Your task to perform on an android device: Search for logitech g502 on bestbuy, select the first entry, and add it to the cart. Image 0: 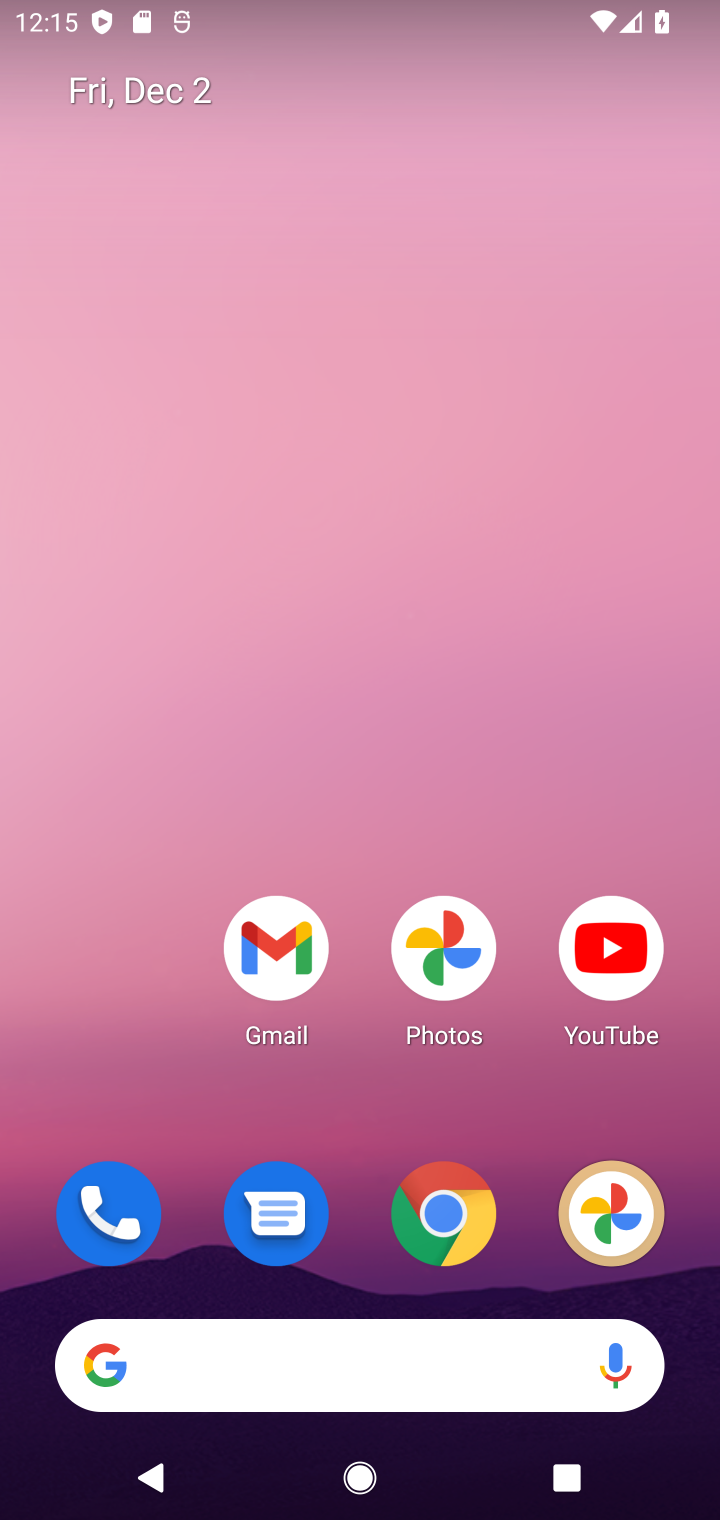
Step 0: click (392, 672)
Your task to perform on an android device: Search for logitech g502 on bestbuy, select the first entry, and add it to the cart. Image 1: 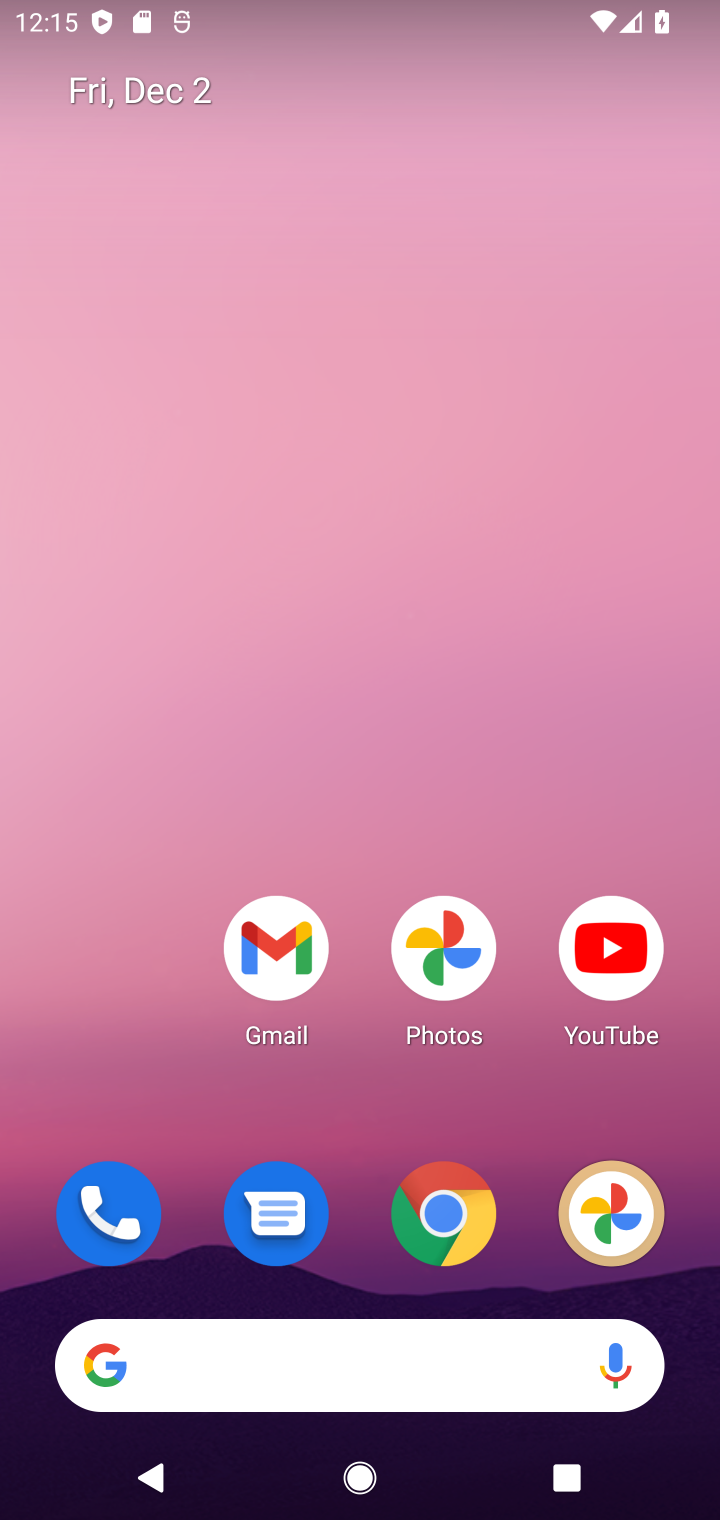
Step 1: drag from (283, 1162) to (323, 447)
Your task to perform on an android device: Search for logitech g502 on bestbuy, select the first entry, and add it to the cart. Image 2: 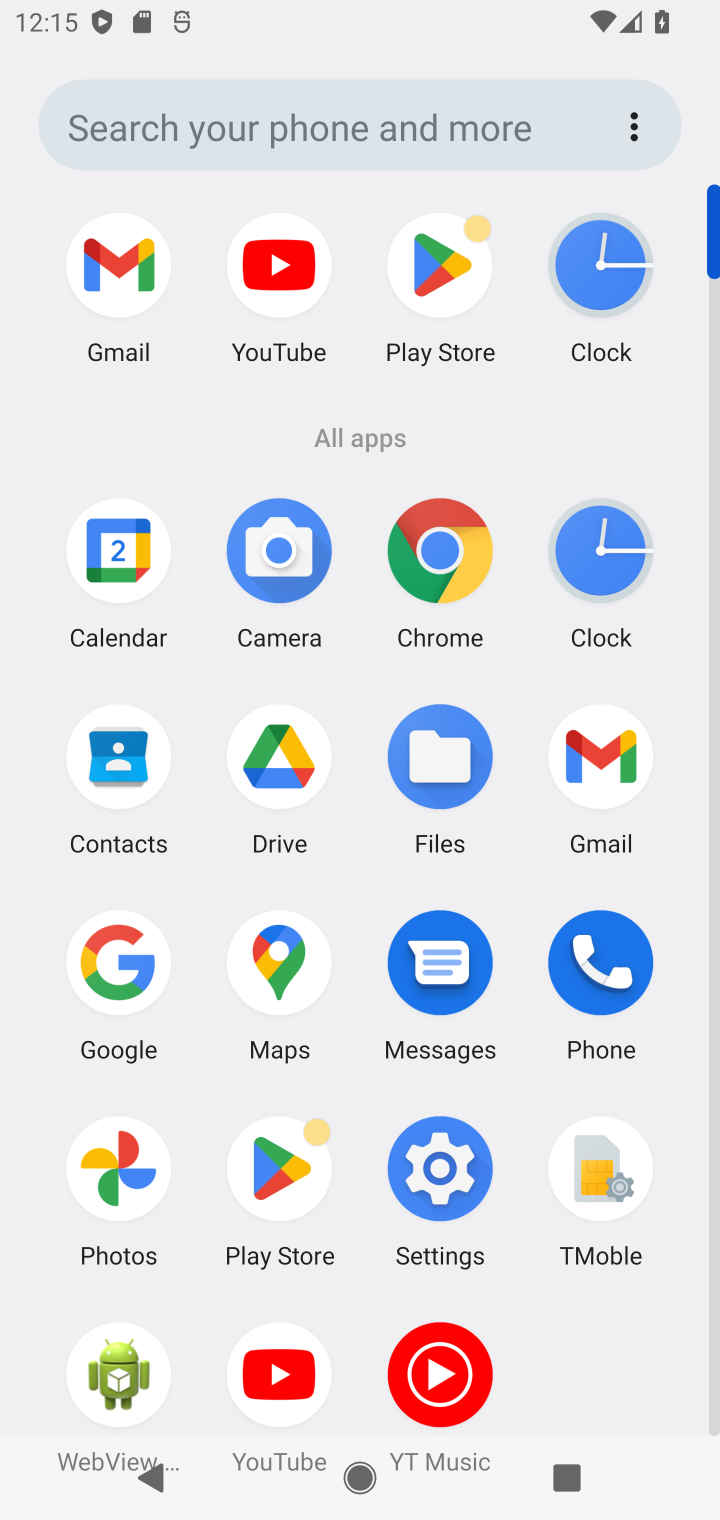
Step 2: click (131, 962)
Your task to perform on an android device: Search for logitech g502 on bestbuy, select the first entry, and add it to the cart. Image 3: 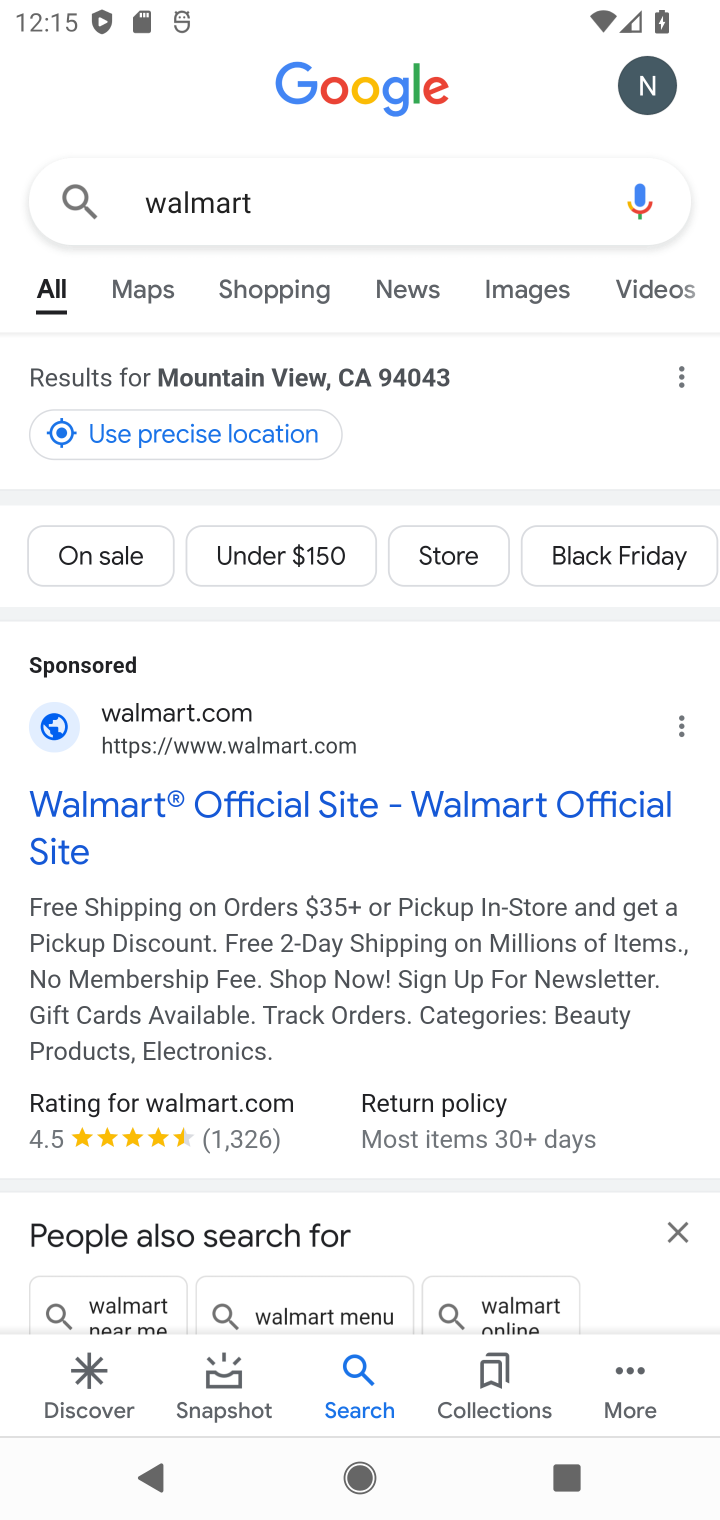
Step 3: click (221, 211)
Your task to perform on an android device: Search for logitech g502 on bestbuy, select the first entry, and add it to the cart. Image 4: 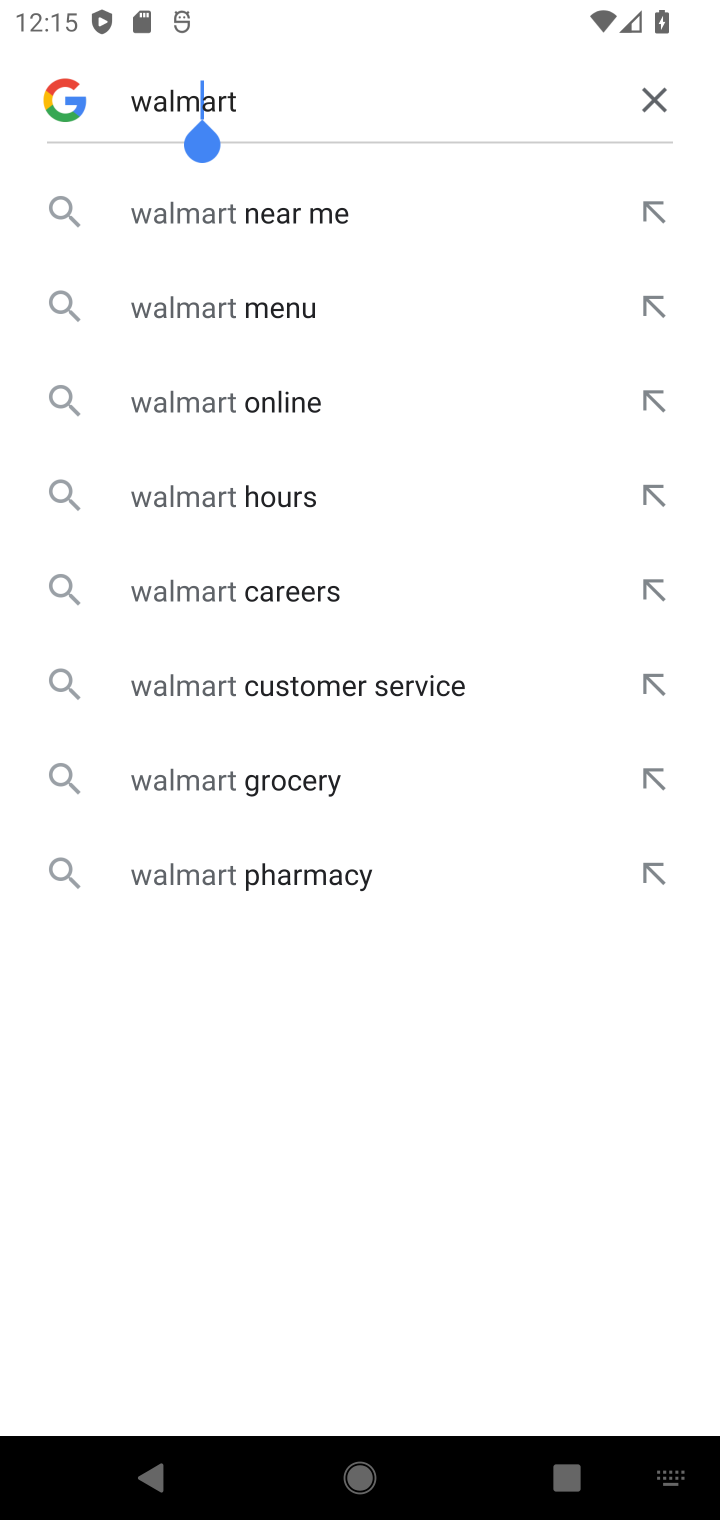
Step 4: click (652, 93)
Your task to perform on an android device: Search for logitech g502 on bestbuy, select the first entry, and add it to the cart. Image 5: 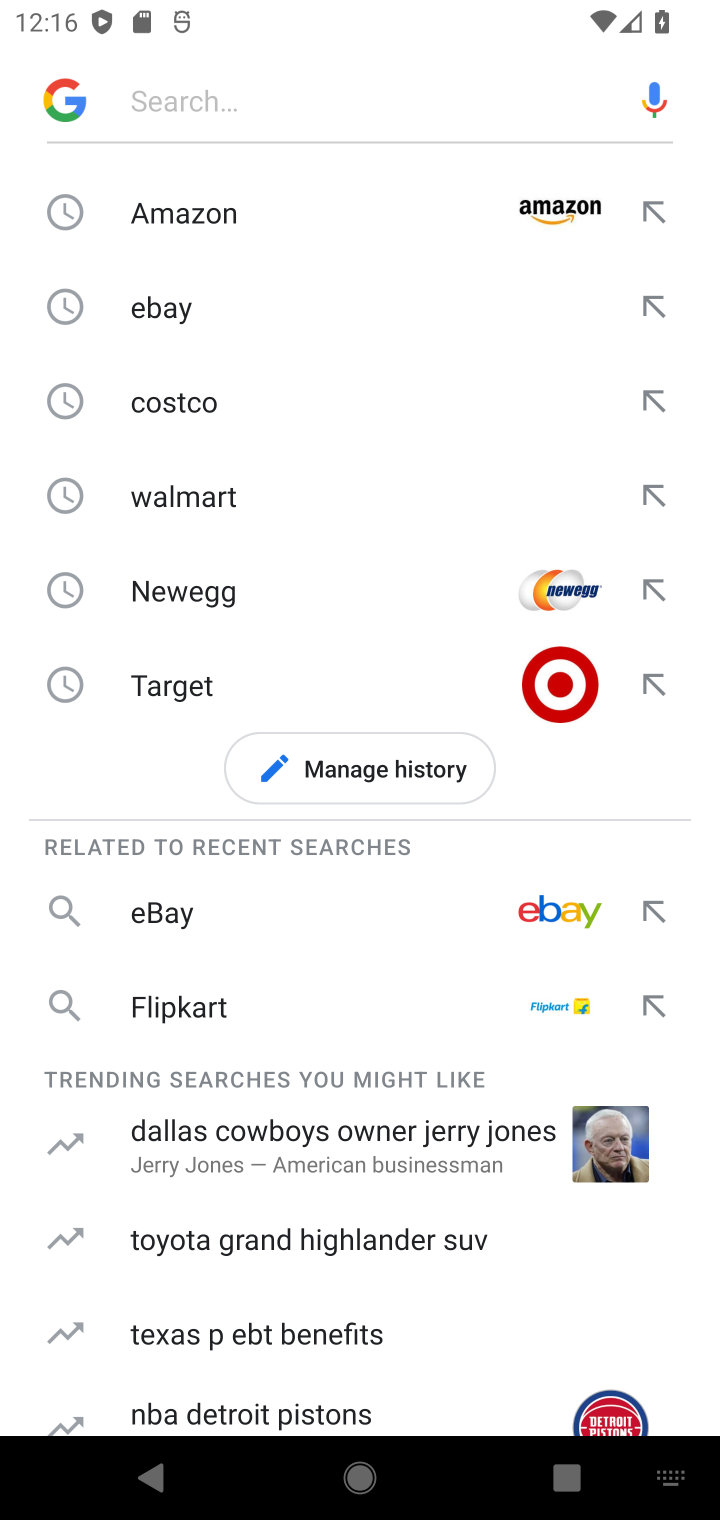
Step 5: type "bestbuy"
Your task to perform on an android device: Search for logitech g502 on bestbuy, select the first entry, and add it to the cart. Image 6: 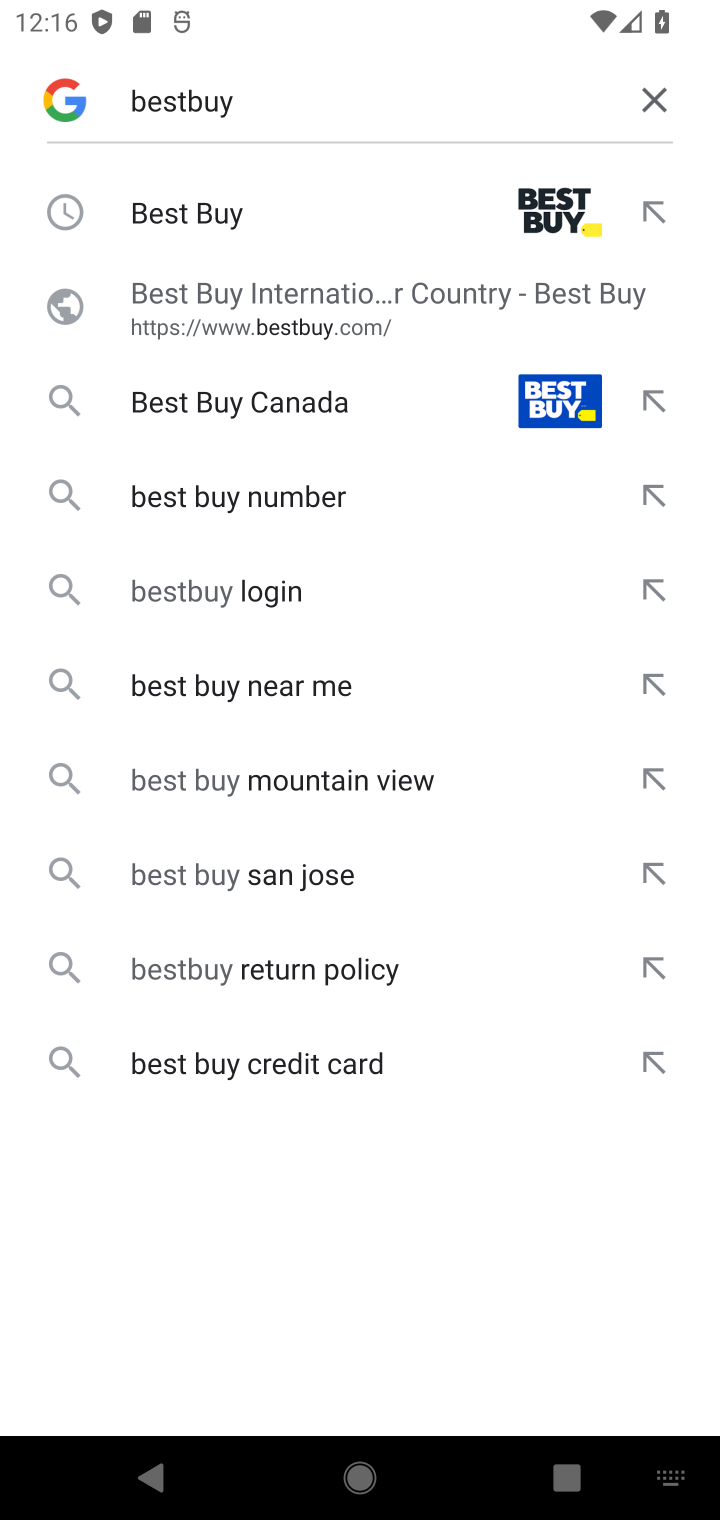
Step 6: click (529, 206)
Your task to perform on an android device: Search for logitech g502 on bestbuy, select the first entry, and add it to the cart. Image 7: 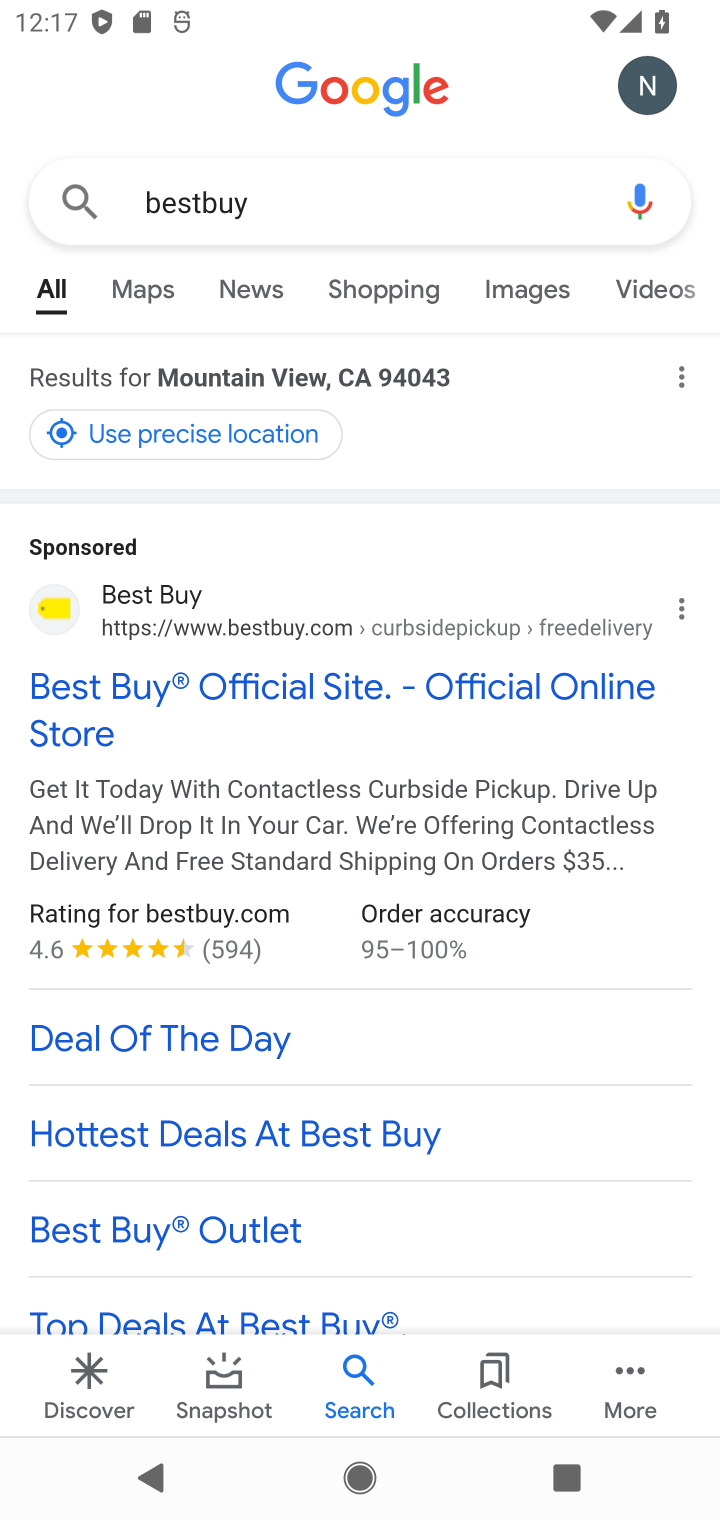
Step 7: click (195, 688)
Your task to perform on an android device: Search for logitech g502 on bestbuy, select the first entry, and add it to the cart. Image 8: 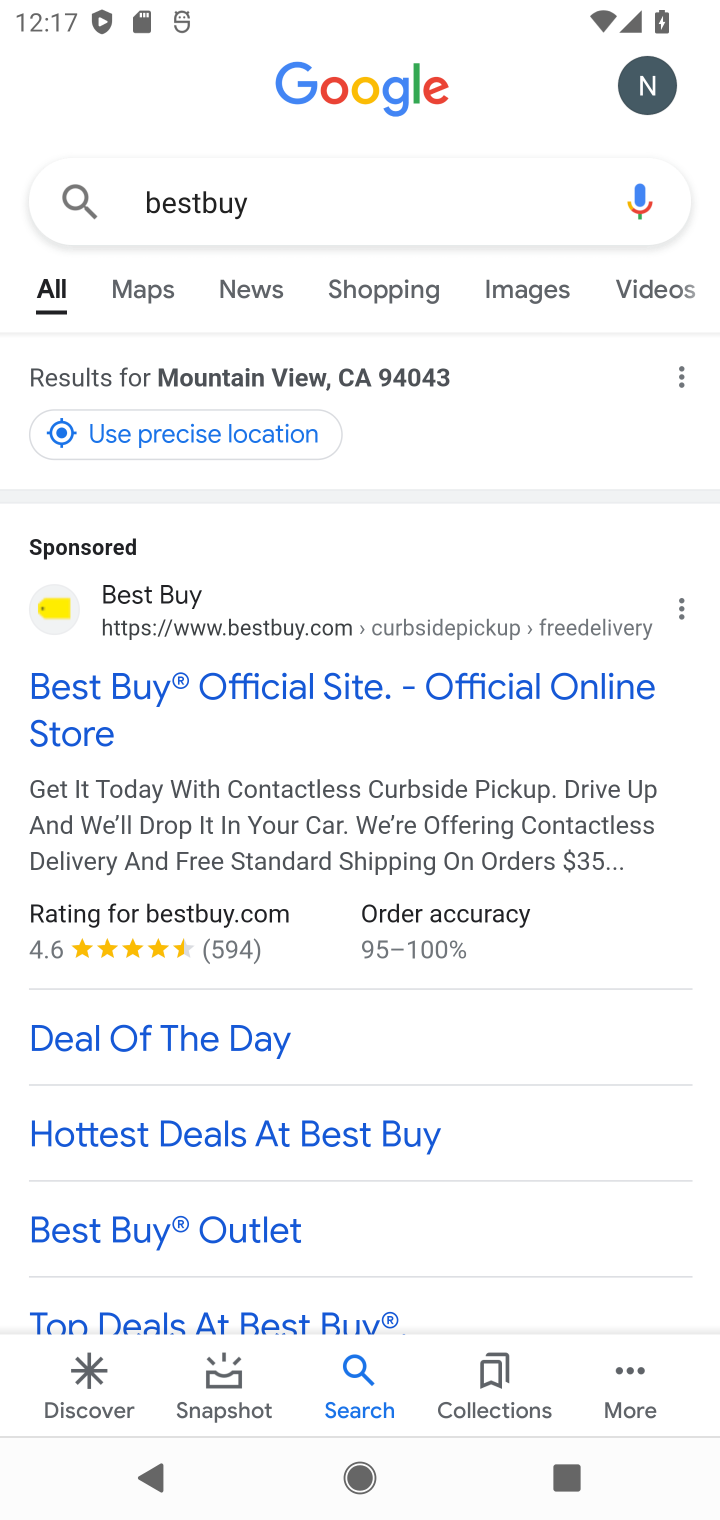
Step 8: click (102, 688)
Your task to perform on an android device: Search for logitech g502 on bestbuy, select the first entry, and add it to the cart. Image 9: 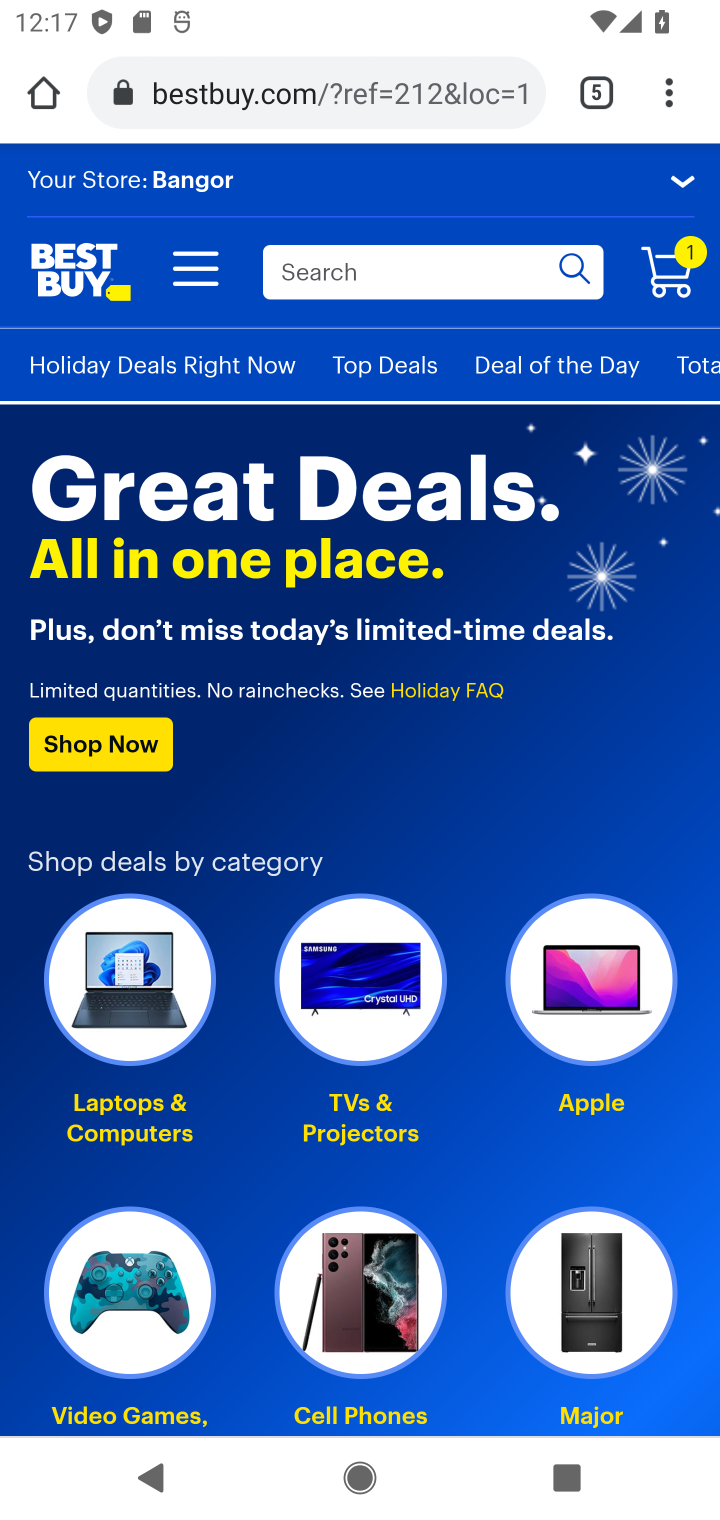
Step 9: click (297, 271)
Your task to perform on an android device: Search for logitech g502 on bestbuy, select the first entry, and add it to the cart. Image 10: 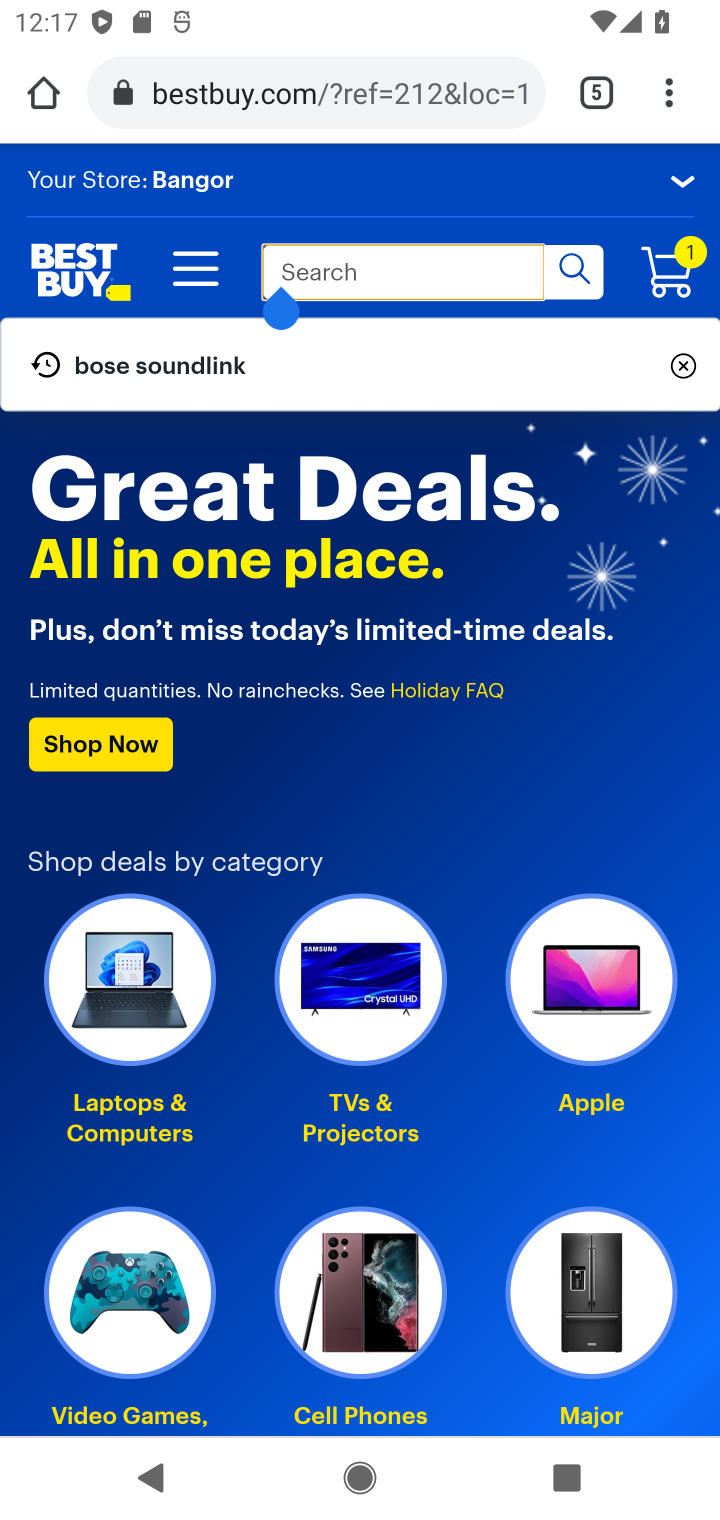
Step 10: type "logitech g502"
Your task to perform on an android device: Search for logitech g502 on bestbuy, select the first entry, and add it to the cart. Image 11: 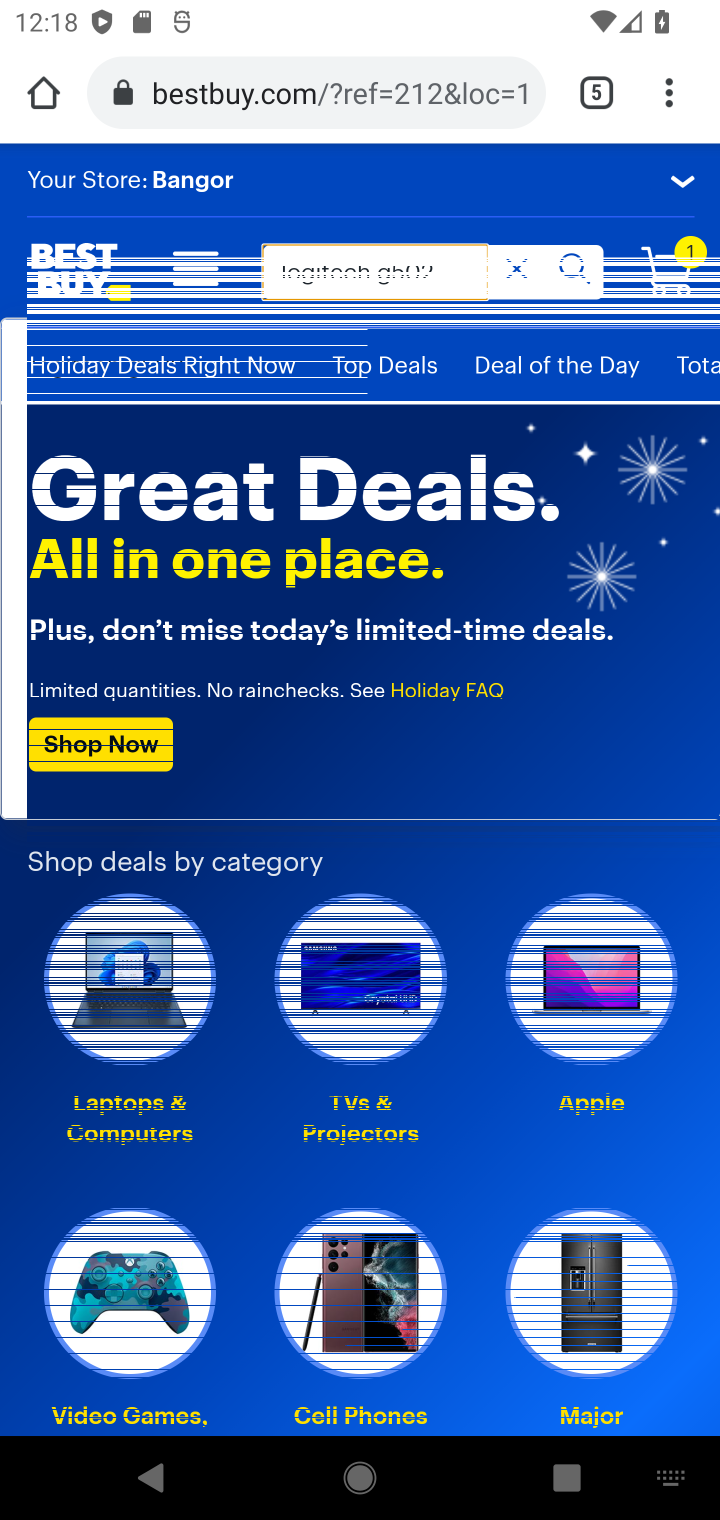
Step 11: click (573, 259)
Your task to perform on an android device: Search for logitech g502 on bestbuy, select the first entry, and add it to the cart. Image 12: 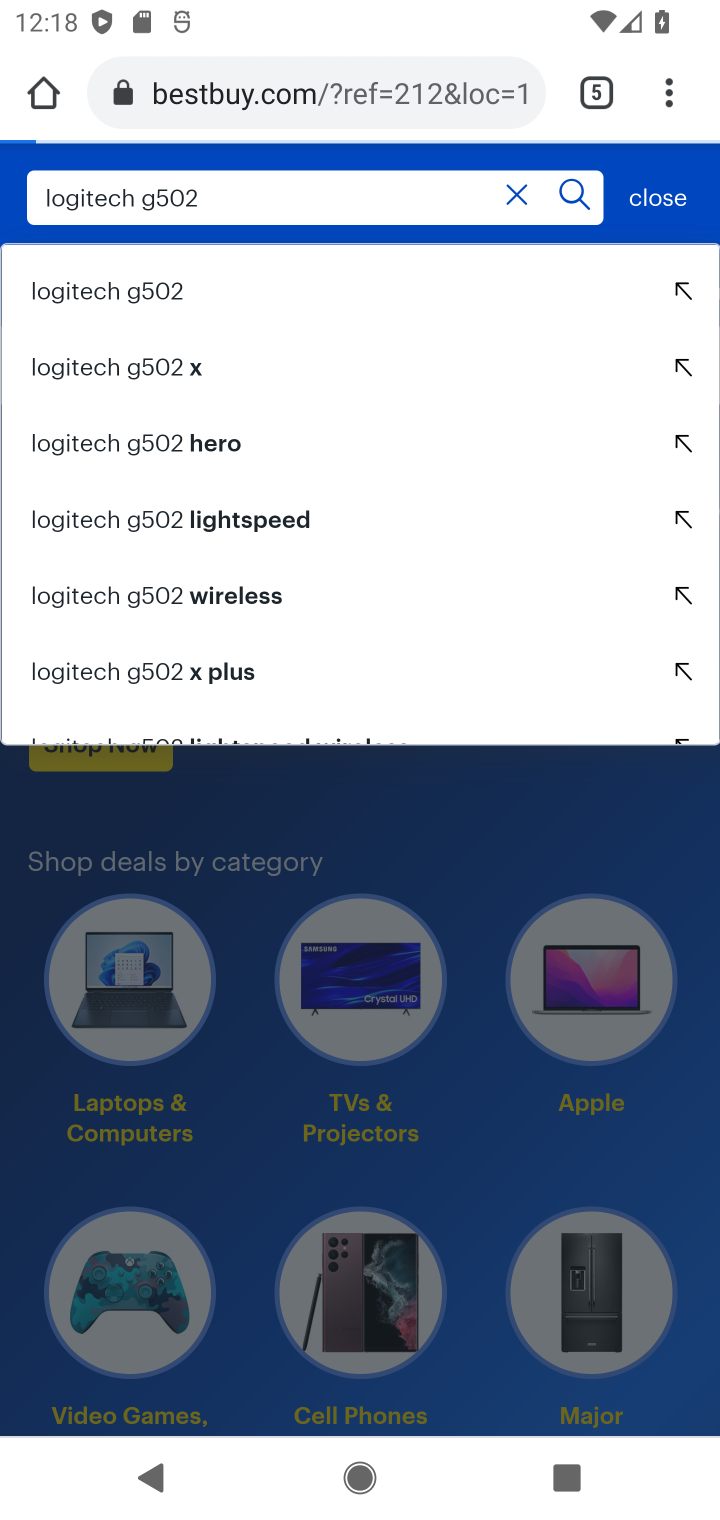
Step 12: click (176, 288)
Your task to perform on an android device: Search for logitech g502 on bestbuy, select the first entry, and add it to the cart. Image 13: 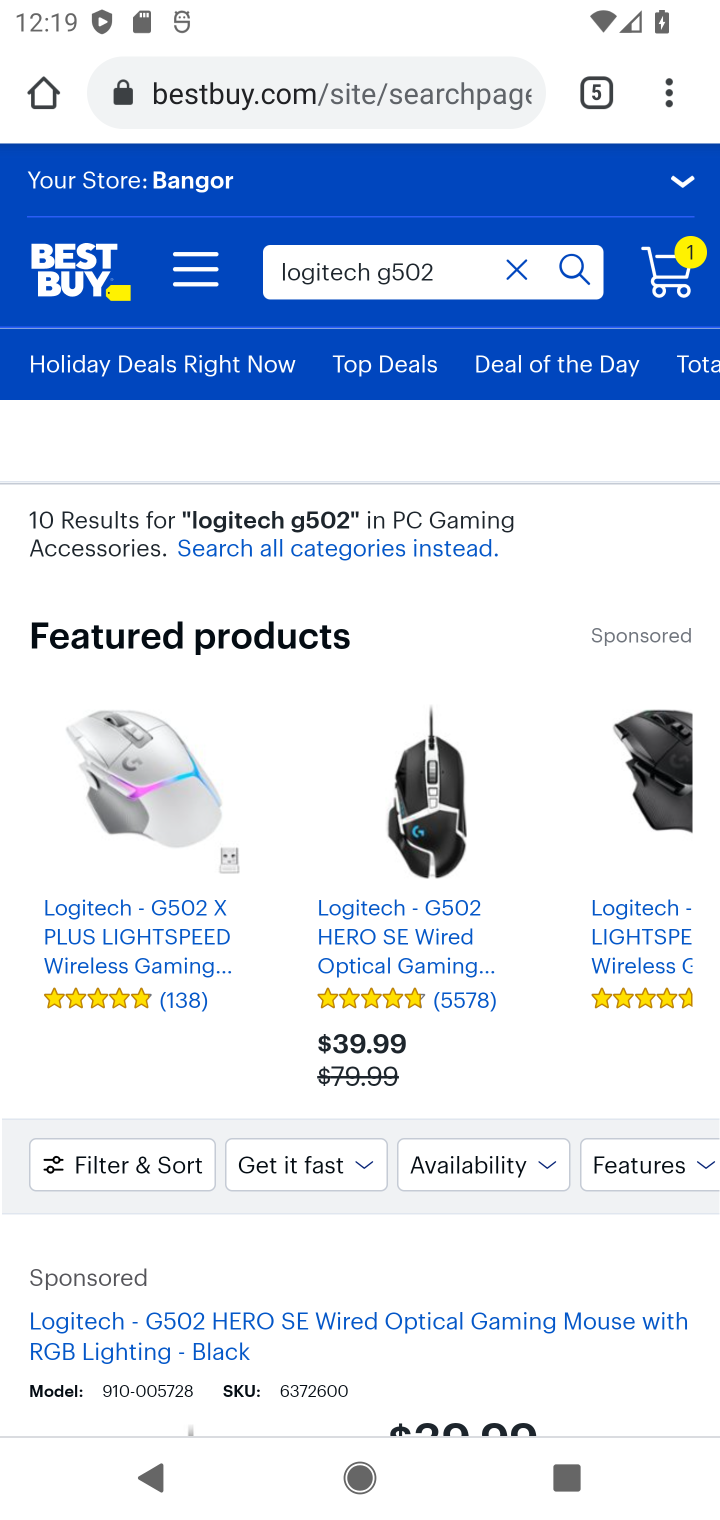
Step 13: drag from (467, 1308) to (517, 705)
Your task to perform on an android device: Search for logitech g502 on bestbuy, select the first entry, and add it to the cart. Image 14: 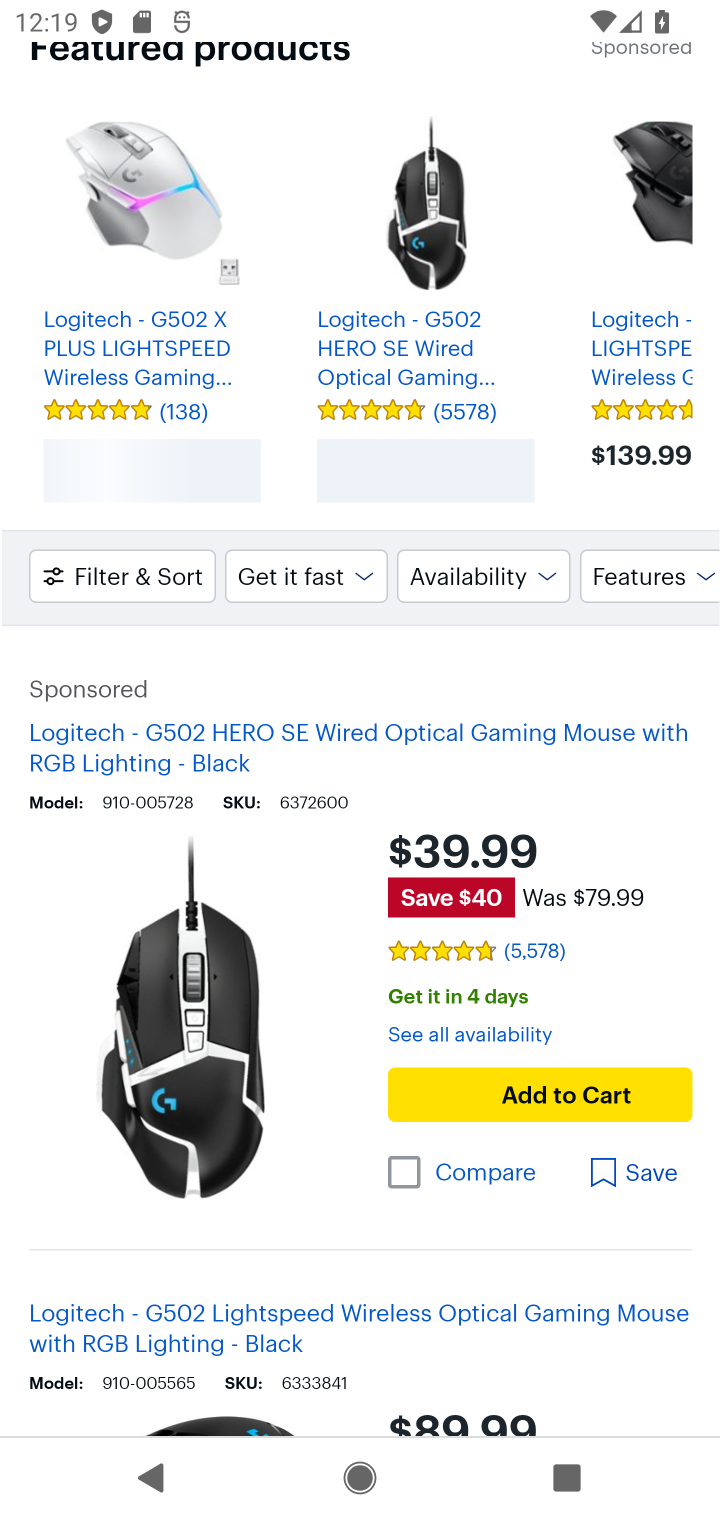
Step 14: click (539, 1098)
Your task to perform on an android device: Search for logitech g502 on bestbuy, select the first entry, and add it to the cart. Image 15: 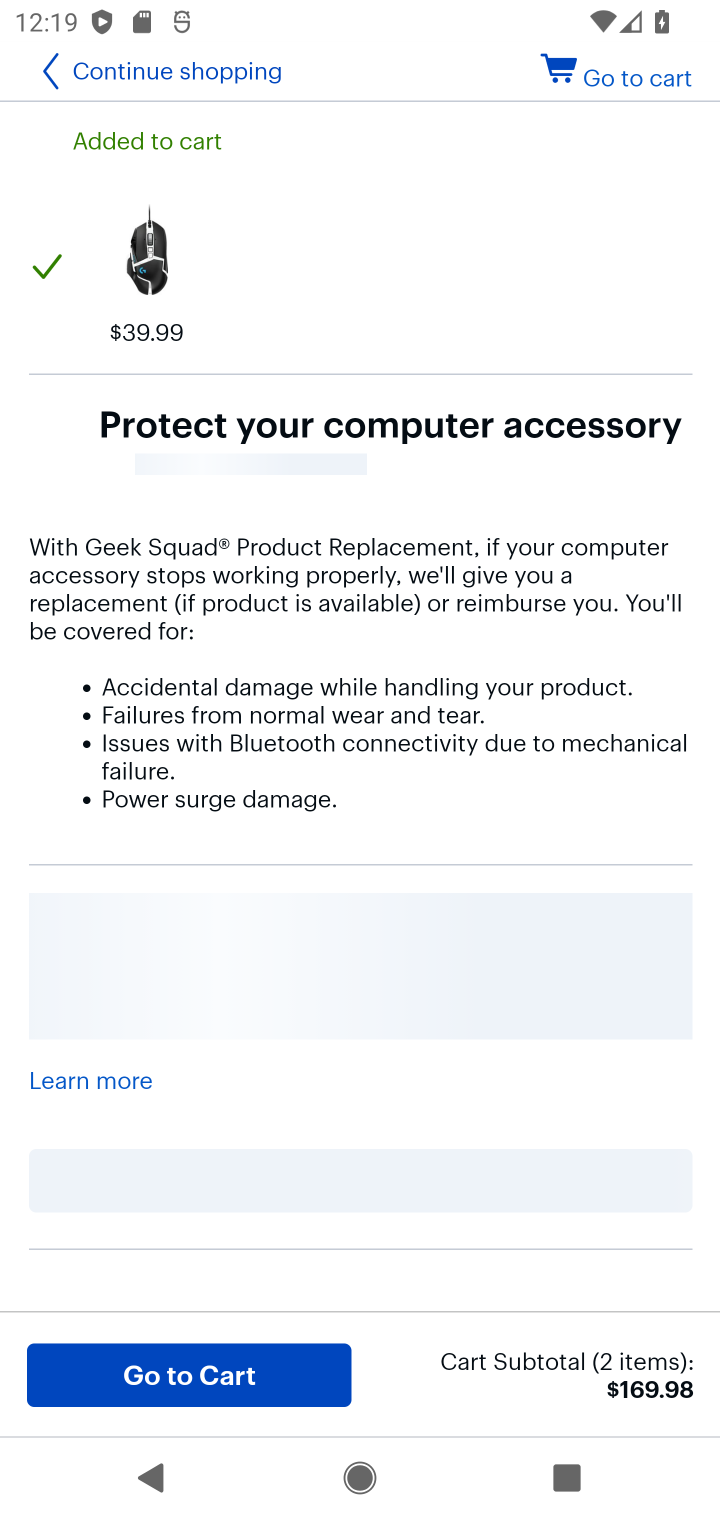
Step 15: click (277, 1392)
Your task to perform on an android device: Search for logitech g502 on bestbuy, select the first entry, and add it to the cart. Image 16: 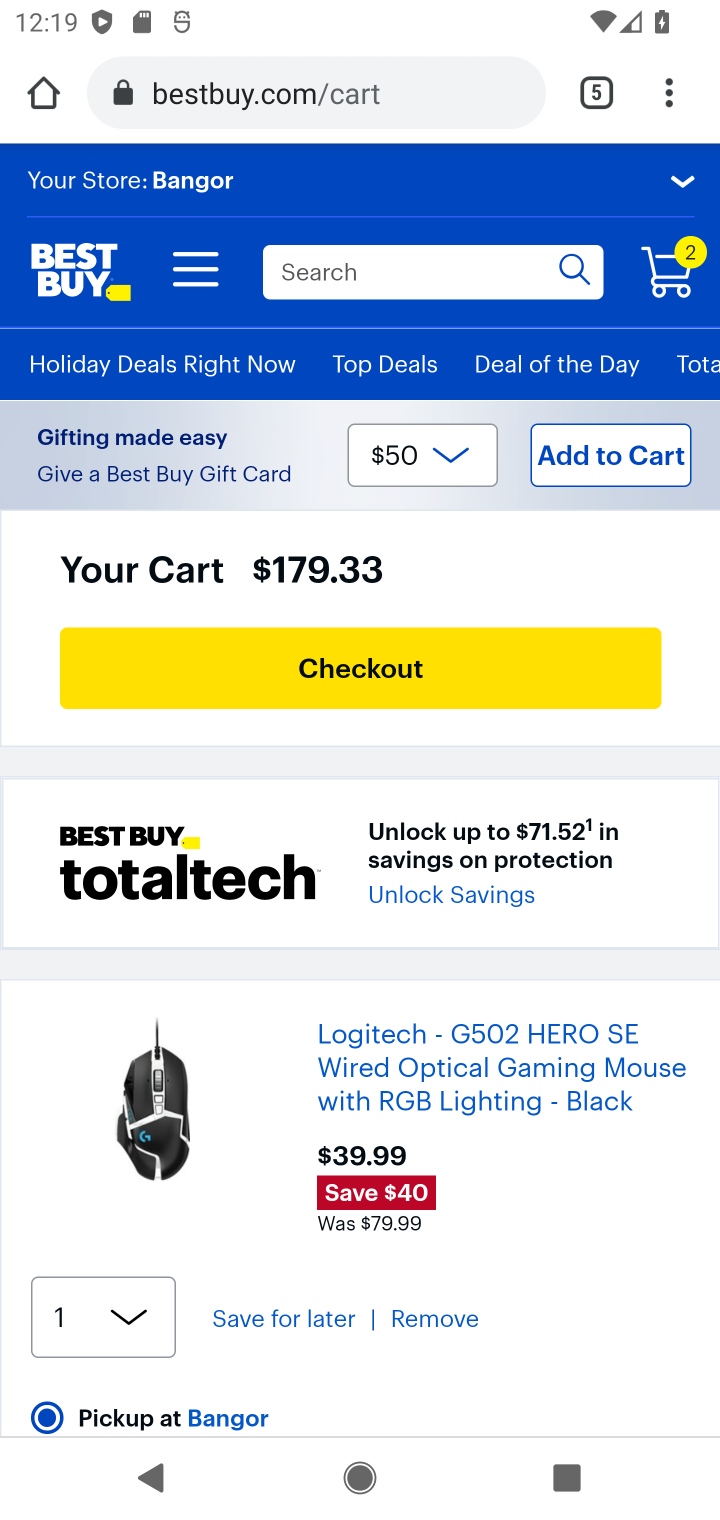
Step 16: task complete